Your task to perform on an android device: allow notifications from all sites in the chrome app Image 0: 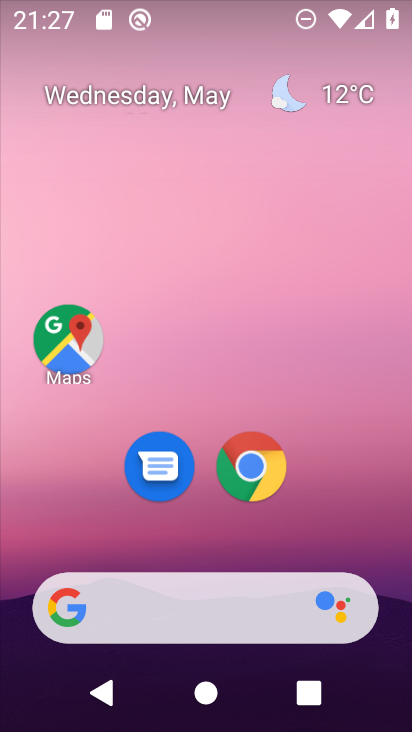
Step 0: click (248, 462)
Your task to perform on an android device: allow notifications from all sites in the chrome app Image 1: 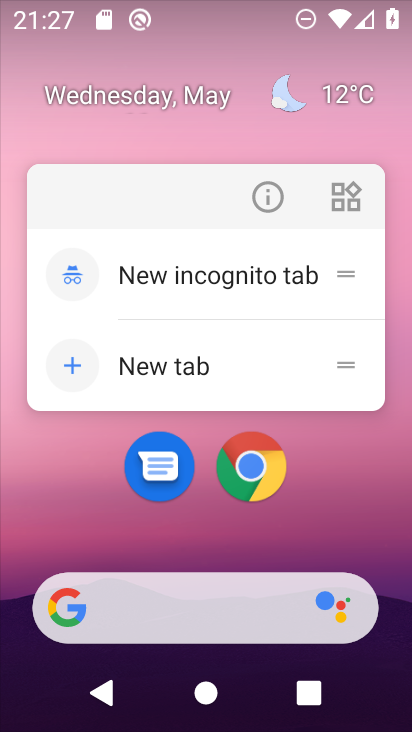
Step 1: click (248, 456)
Your task to perform on an android device: allow notifications from all sites in the chrome app Image 2: 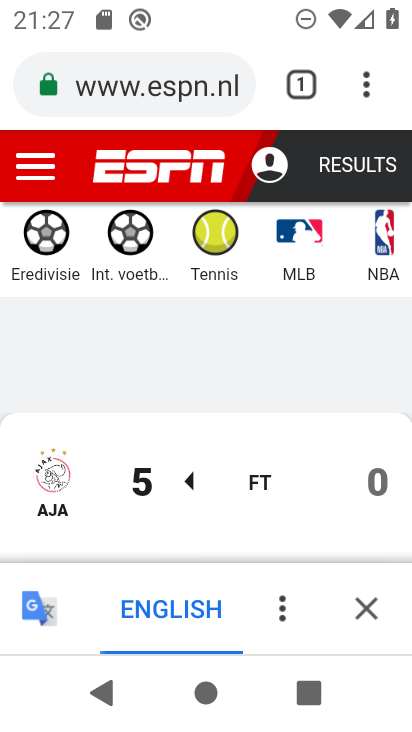
Step 2: click (363, 608)
Your task to perform on an android device: allow notifications from all sites in the chrome app Image 3: 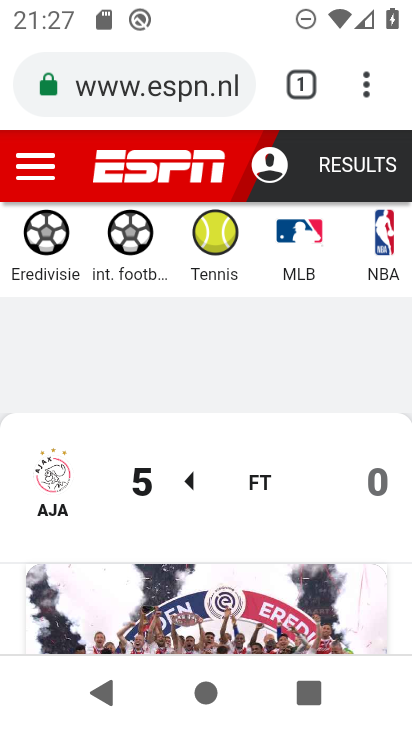
Step 3: click (361, 77)
Your task to perform on an android device: allow notifications from all sites in the chrome app Image 4: 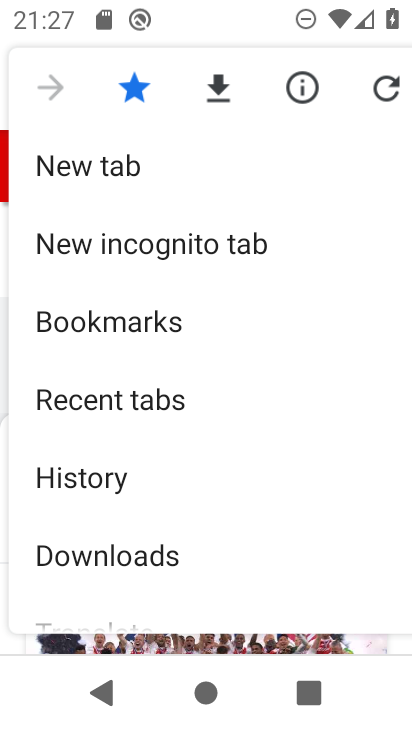
Step 4: drag from (213, 528) to (204, 119)
Your task to perform on an android device: allow notifications from all sites in the chrome app Image 5: 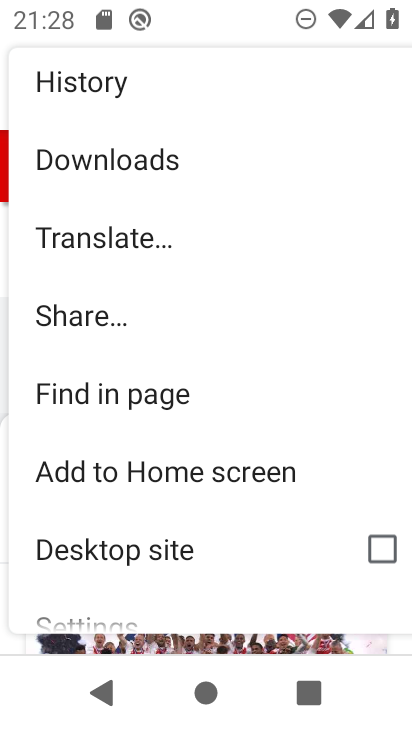
Step 5: drag from (193, 182) to (226, 549)
Your task to perform on an android device: allow notifications from all sites in the chrome app Image 6: 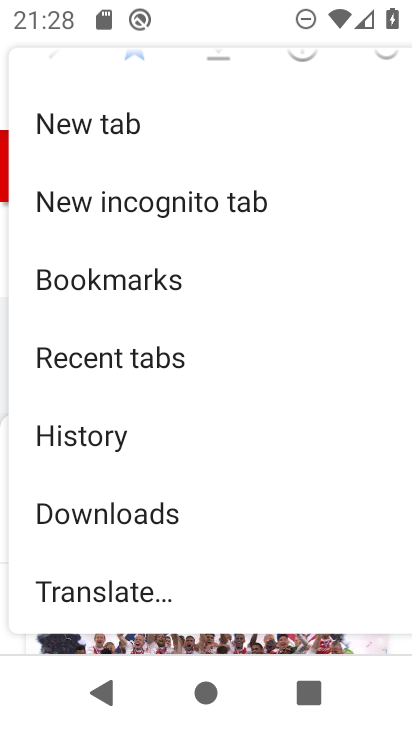
Step 6: drag from (217, 484) to (242, 96)
Your task to perform on an android device: allow notifications from all sites in the chrome app Image 7: 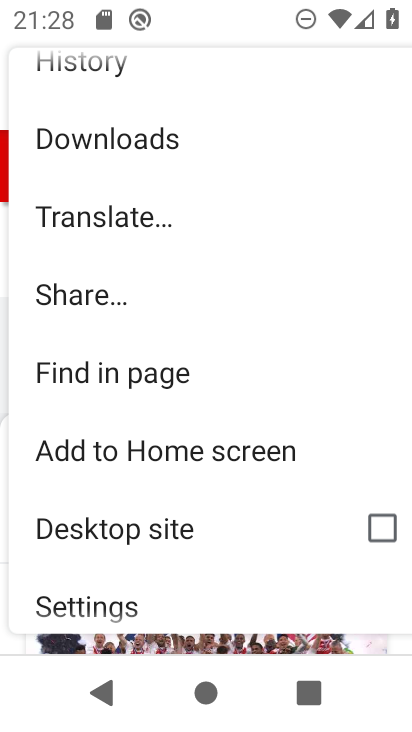
Step 7: drag from (251, 555) to (262, 139)
Your task to perform on an android device: allow notifications from all sites in the chrome app Image 8: 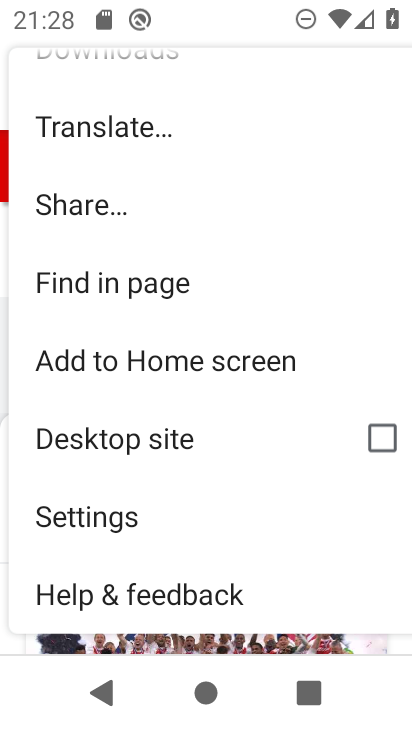
Step 8: click (157, 513)
Your task to perform on an android device: allow notifications from all sites in the chrome app Image 9: 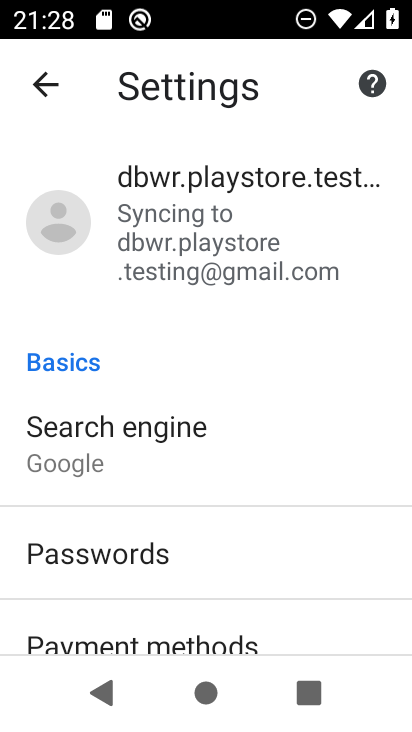
Step 9: drag from (274, 626) to (288, 378)
Your task to perform on an android device: allow notifications from all sites in the chrome app Image 10: 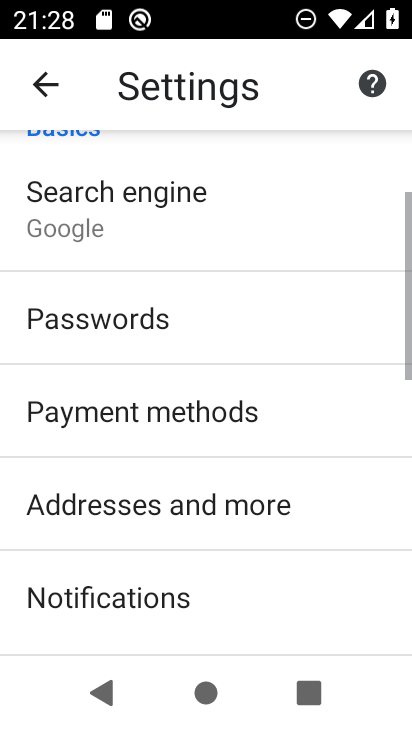
Step 10: drag from (299, 192) to (302, 157)
Your task to perform on an android device: allow notifications from all sites in the chrome app Image 11: 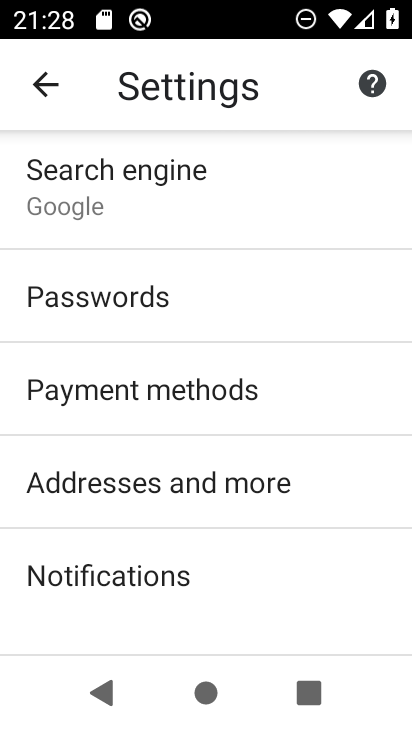
Step 11: drag from (243, 589) to (246, 178)
Your task to perform on an android device: allow notifications from all sites in the chrome app Image 12: 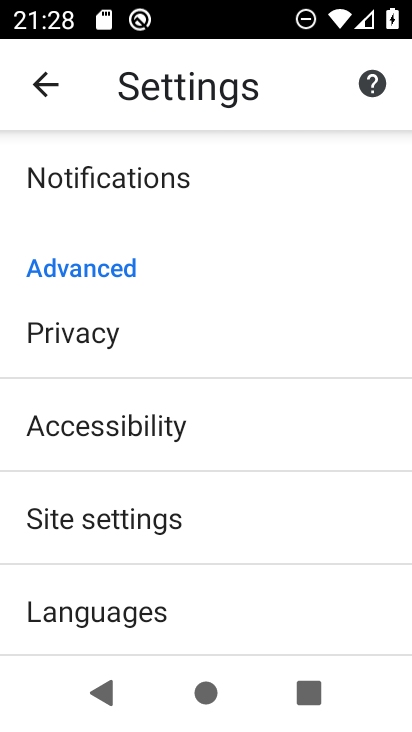
Step 12: click (199, 514)
Your task to perform on an android device: allow notifications from all sites in the chrome app Image 13: 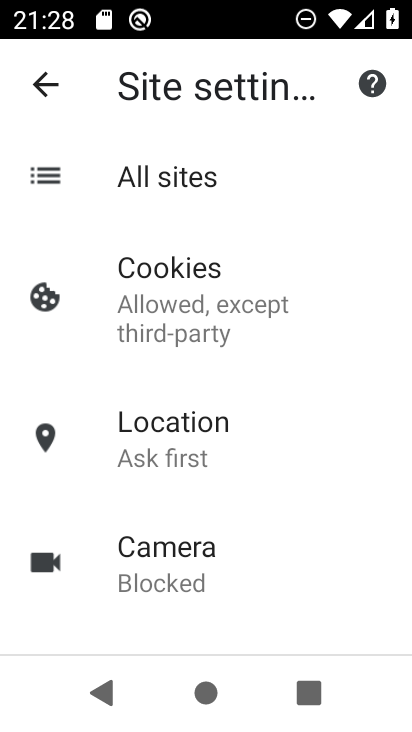
Step 13: click (97, 177)
Your task to perform on an android device: allow notifications from all sites in the chrome app Image 14: 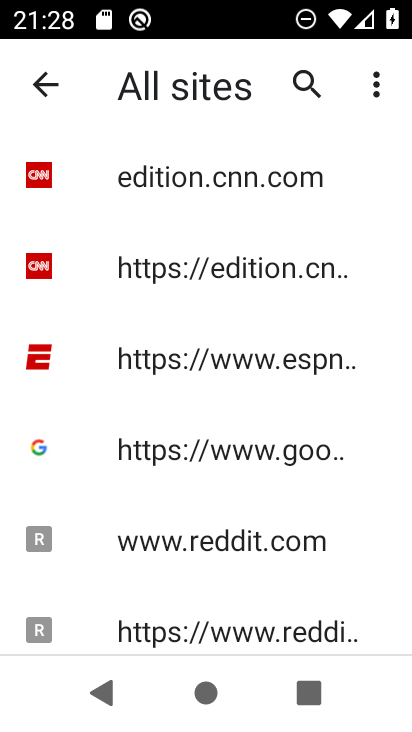
Step 14: click (93, 536)
Your task to perform on an android device: allow notifications from all sites in the chrome app Image 15: 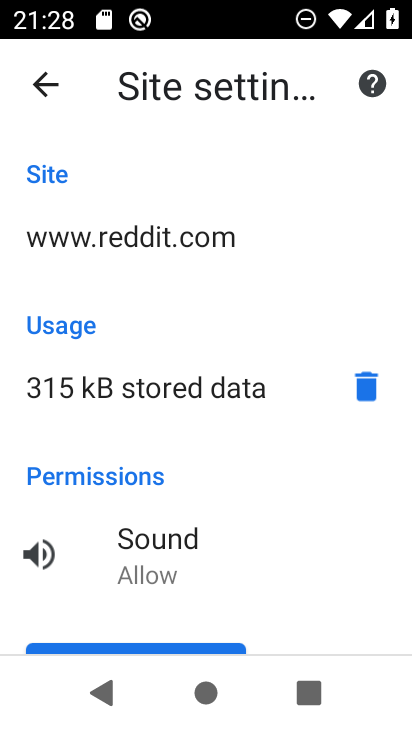
Step 15: click (45, 86)
Your task to perform on an android device: allow notifications from all sites in the chrome app Image 16: 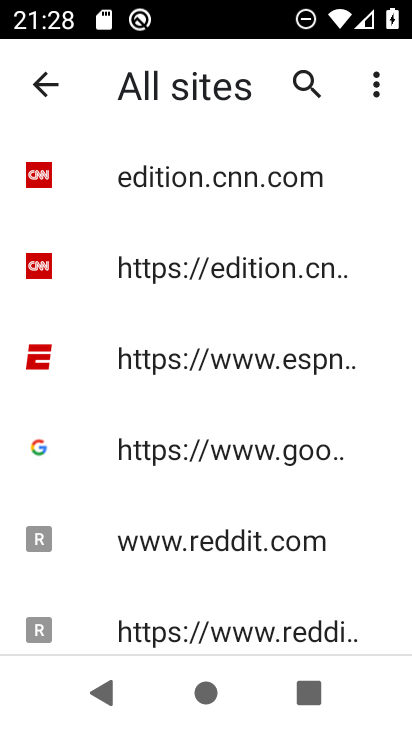
Step 16: click (83, 173)
Your task to perform on an android device: allow notifications from all sites in the chrome app Image 17: 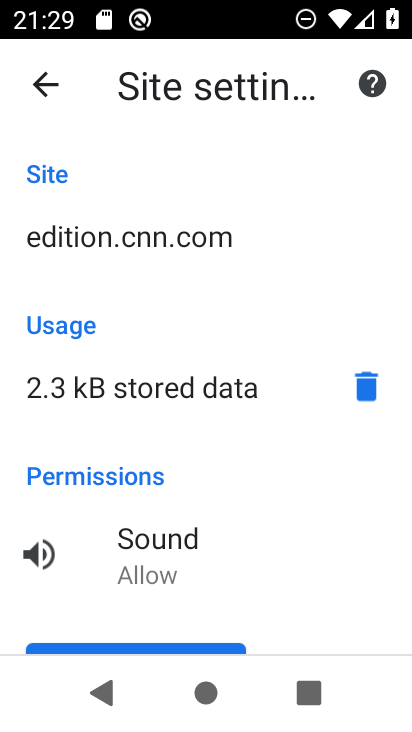
Step 17: click (47, 90)
Your task to perform on an android device: allow notifications from all sites in the chrome app Image 18: 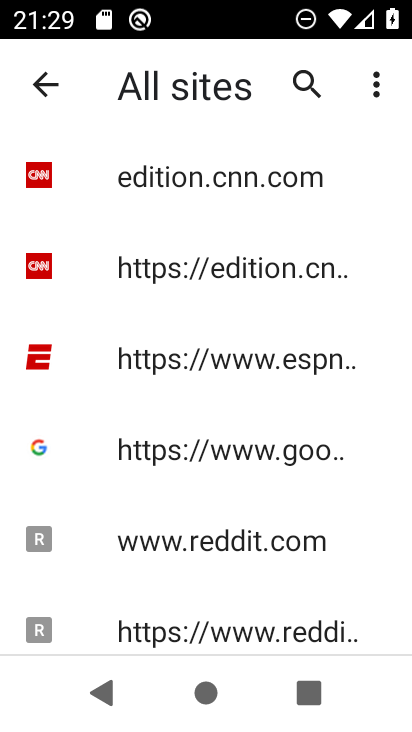
Step 18: drag from (115, 597) to (105, 144)
Your task to perform on an android device: allow notifications from all sites in the chrome app Image 19: 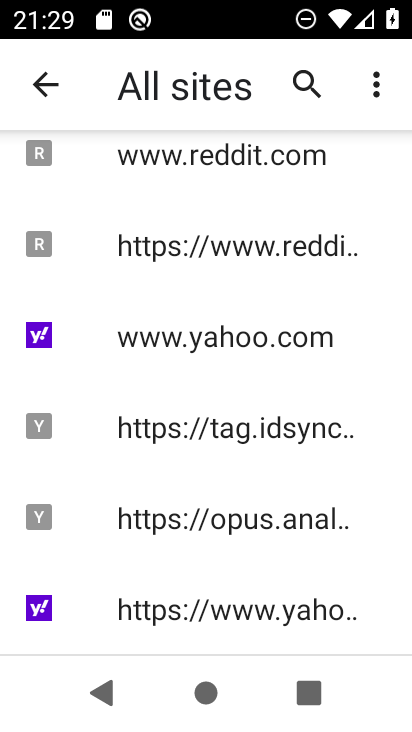
Step 19: click (90, 345)
Your task to perform on an android device: allow notifications from all sites in the chrome app Image 20: 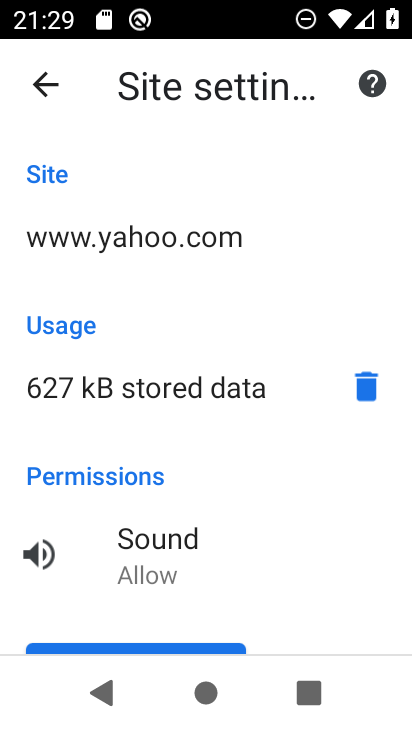
Step 20: task complete